Your task to perform on an android device: Open maps Image 0: 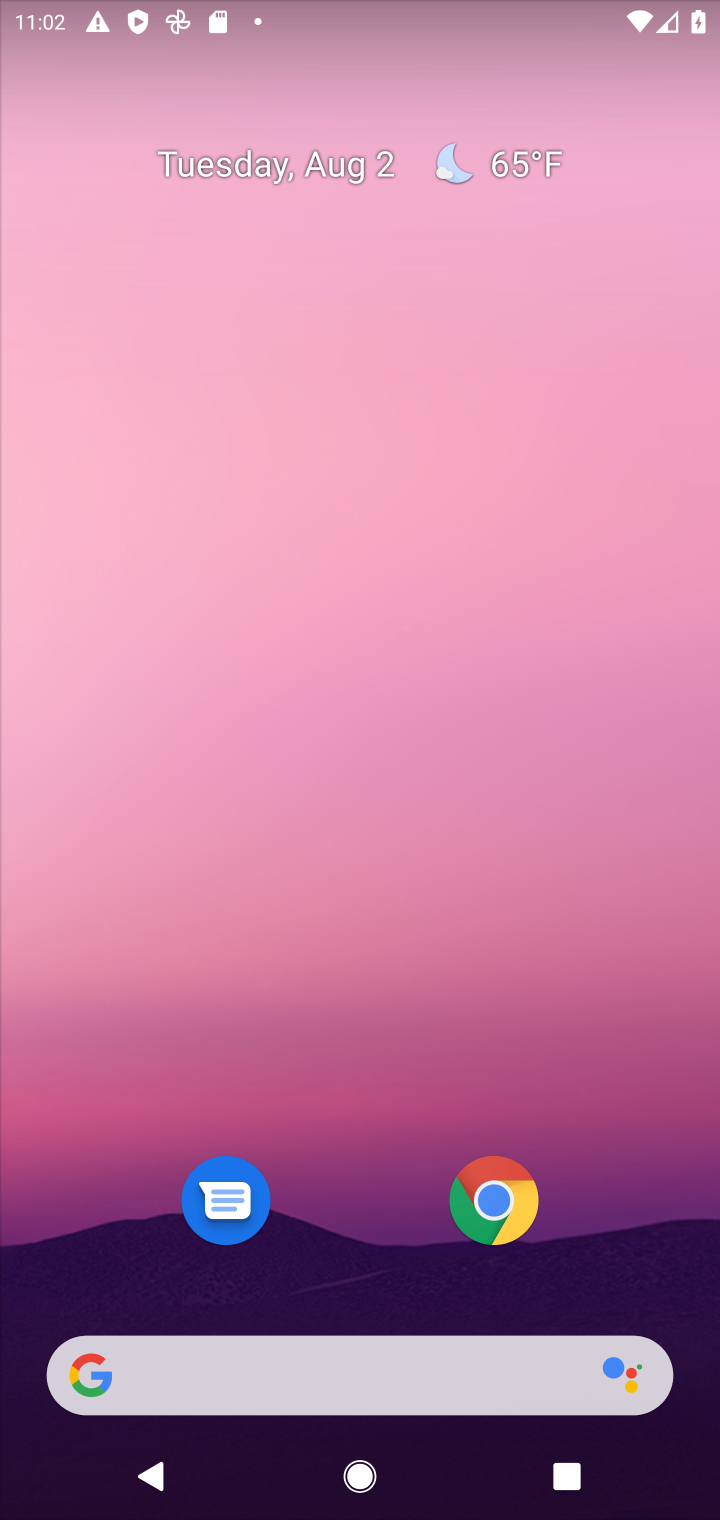
Step 0: drag from (694, 1317) to (628, 168)
Your task to perform on an android device: Open maps Image 1: 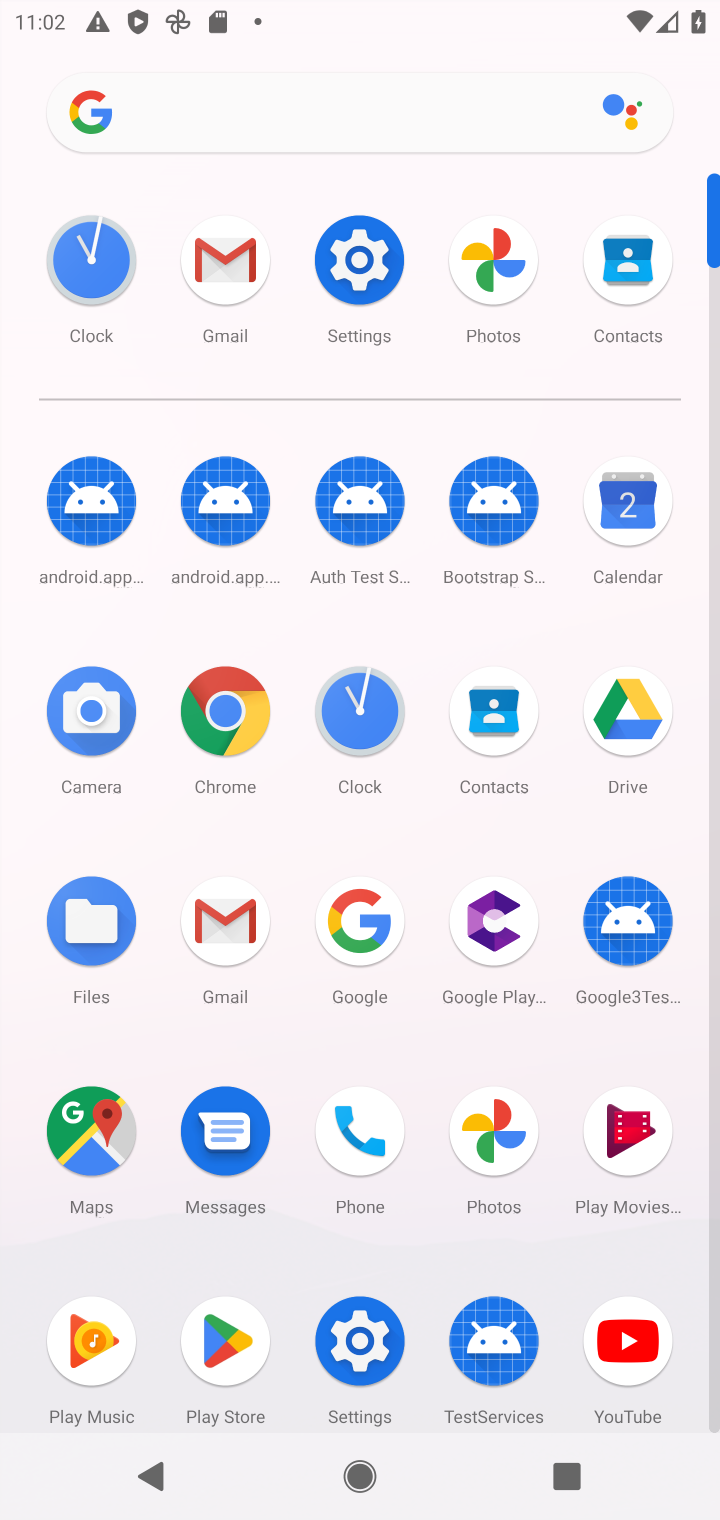
Step 1: click (93, 1124)
Your task to perform on an android device: Open maps Image 2: 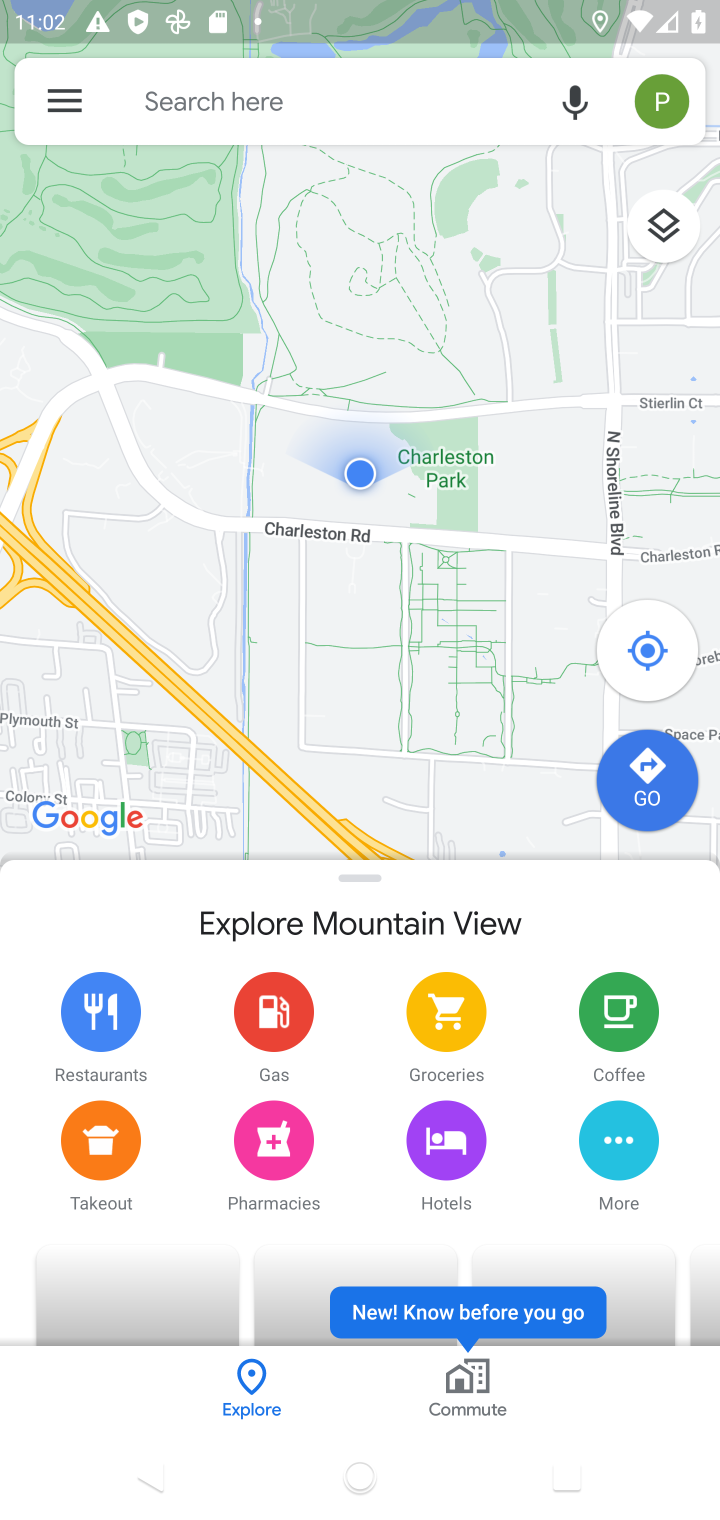
Step 2: task complete